Your task to perform on an android device: Open the phone app and click the voicemail tab. Image 0: 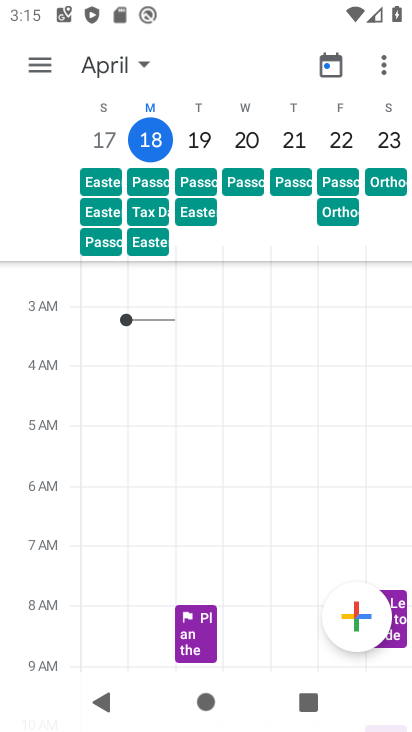
Step 0: press back button
Your task to perform on an android device: Open the phone app and click the voicemail tab. Image 1: 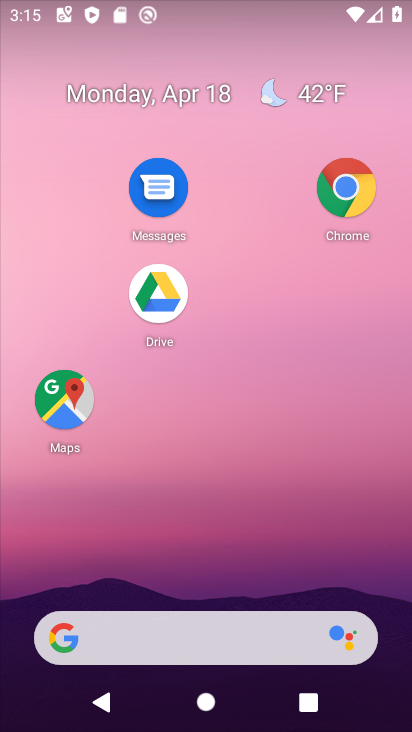
Step 1: drag from (205, 469) to (284, 81)
Your task to perform on an android device: Open the phone app and click the voicemail tab. Image 2: 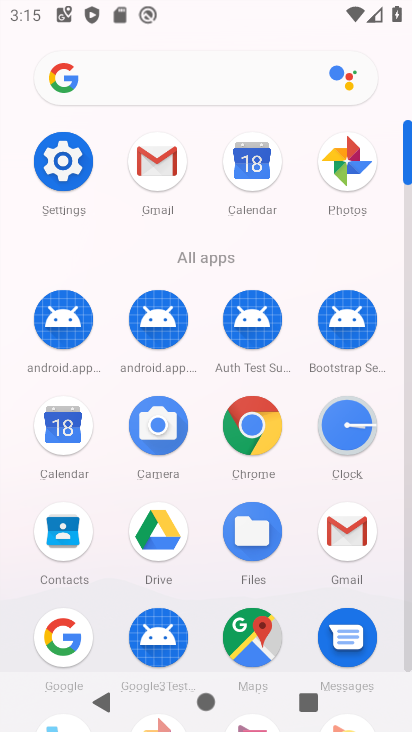
Step 2: drag from (113, 590) to (158, 333)
Your task to perform on an android device: Open the phone app and click the voicemail tab. Image 3: 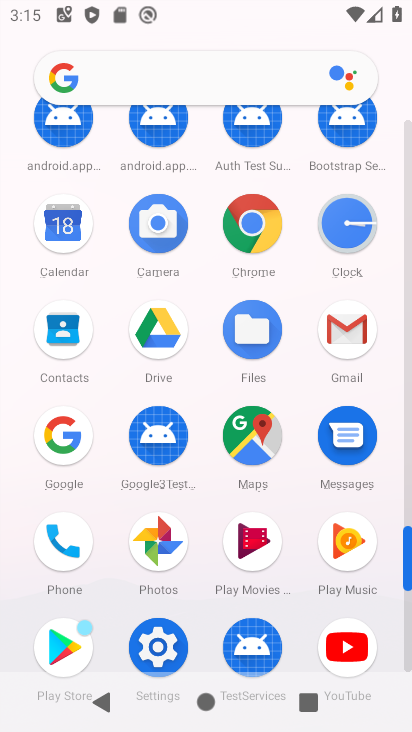
Step 3: click (59, 546)
Your task to perform on an android device: Open the phone app and click the voicemail tab. Image 4: 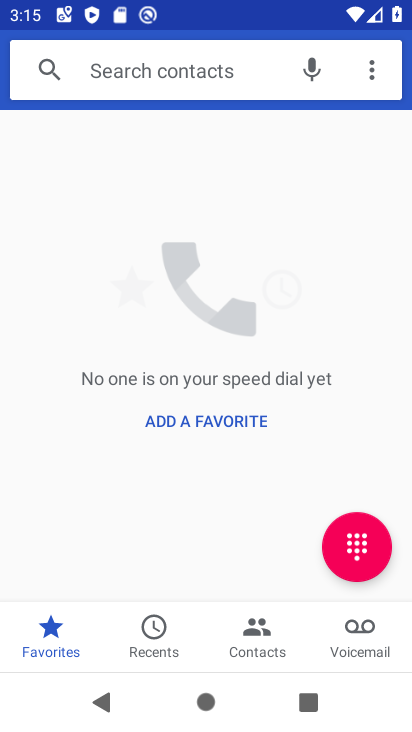
Step 4: click (361, 635)
Your task to perform on an android device: Open the phone app and click the voicemail tab. Image 5: 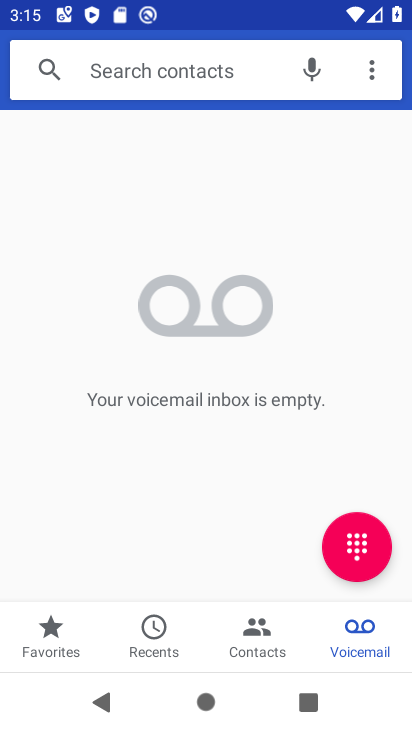
Step 5: task complete